Your task to perform on an android device: Is it going to rain tomorrow? Image 0: 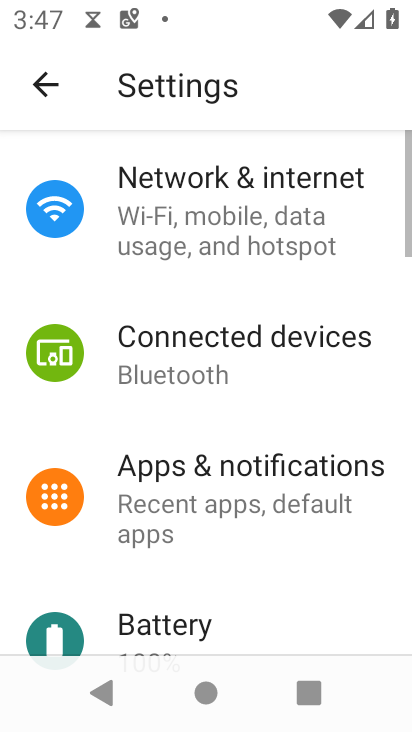
Step 0: press home button
Your task to perform on an android device: Is it going to rain tomorrow? Image 1: 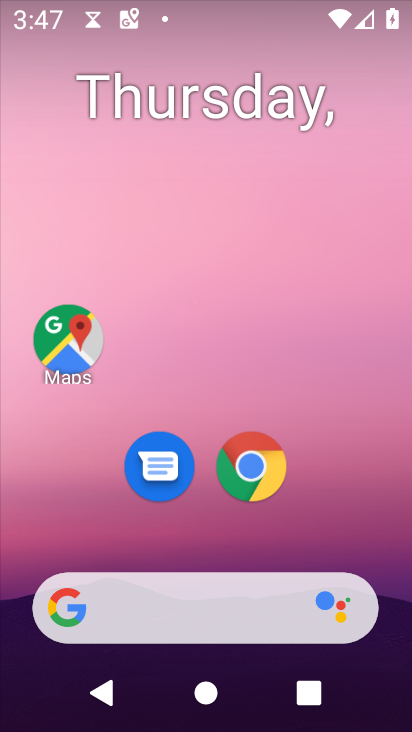
Step 1: drag from (284, 572) to (333, 64)
Your task to perform on an android device: Is it going to rain tomorrow? Image 2: 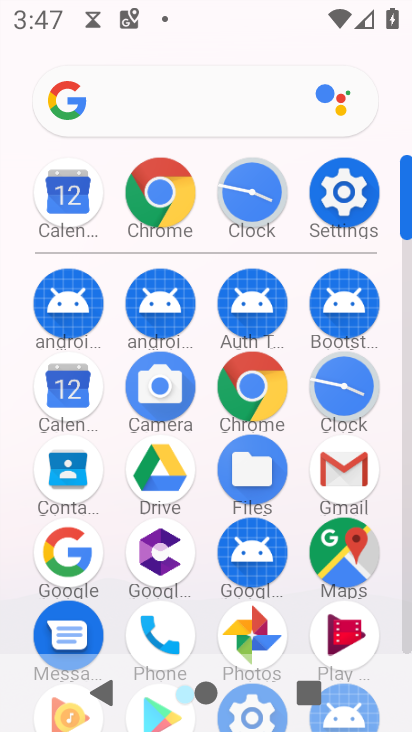
Step 2: click (266, 376)
Your task to perform on an android device: Is it going to rain tomorrow? Image 3: 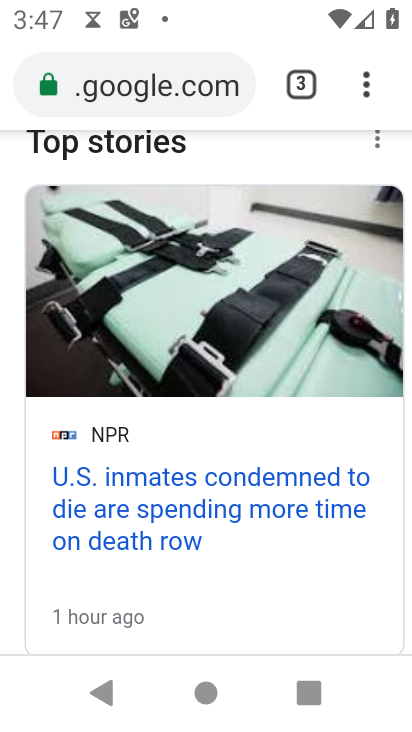
Step 3: click (197, 85)
Your task to perform on an android device: Is it going to rain tomorrow? Image 4: 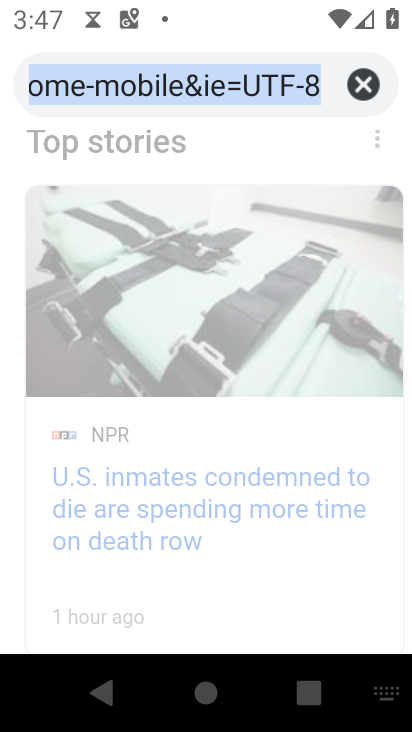
Step 4: click (363, 86)
Your task to perform on an android device: Is it going to rain tomorrow? Image 5: 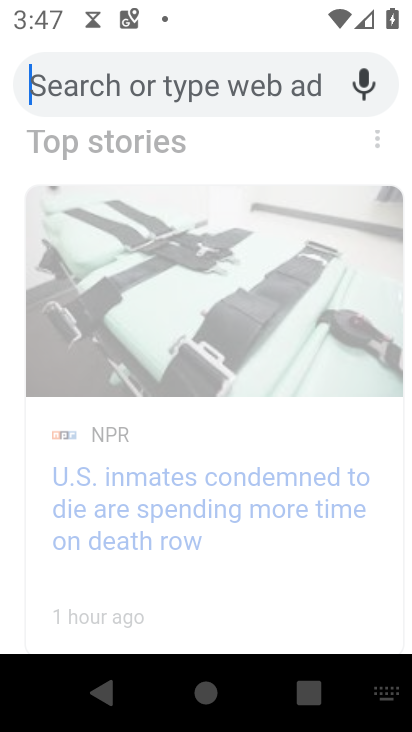
Step 5: type "going to rain tomorrow"
Your task to perform on an android device: Is it going to rain tomorrow? Image 6: 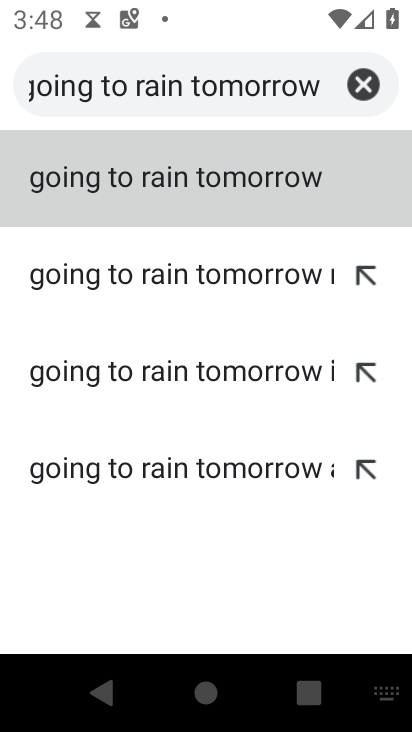
Step 6: click (307, 182)
Your task to perform on an android device: Is it going to rain tomorrow? Image 7: 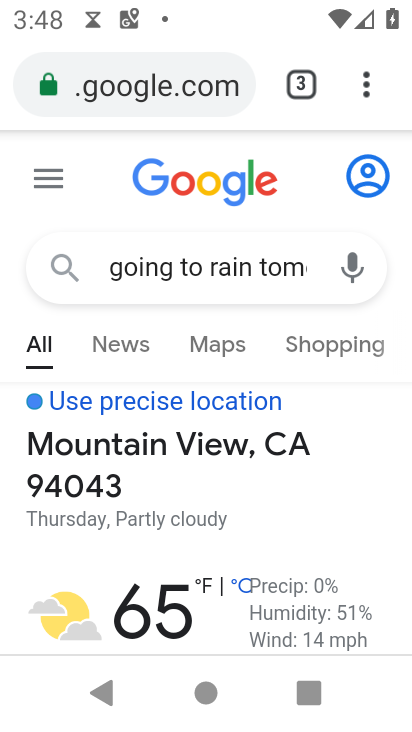
Step 7: task complete